Your task to perform on an android device: Open Youtube and go to "Your channel" Image 0: 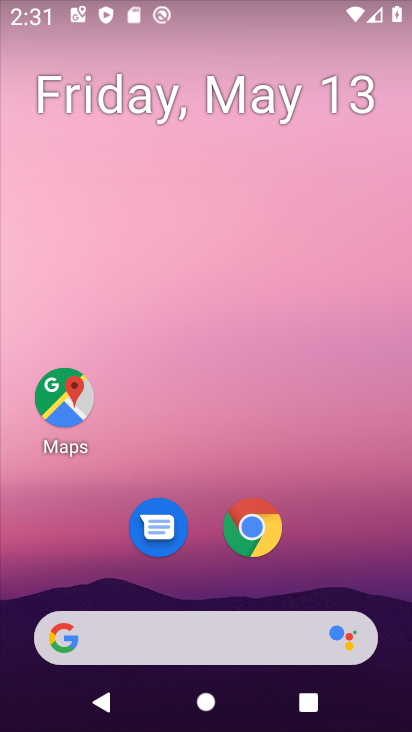
Step 0: drag from (213, 565) to (407, 217)
Your task to perform on an android device: Open Youtube and go to "Your channel" Image 1: 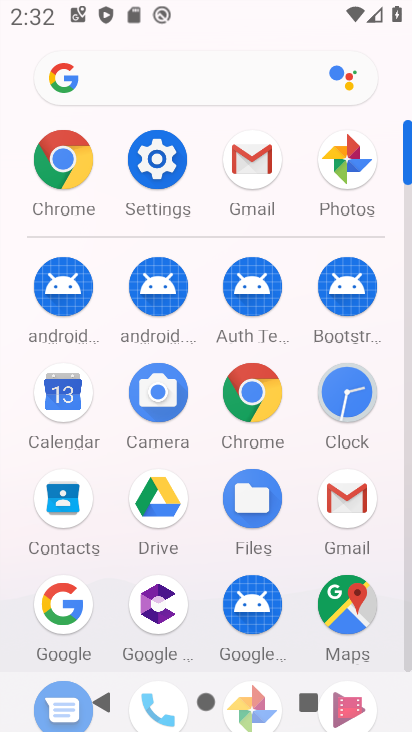
Step 1: drag from (200, 579) to (285, 159)
Your task to perform on an android device: Open Youtube and go to "Your channel" Image 2: 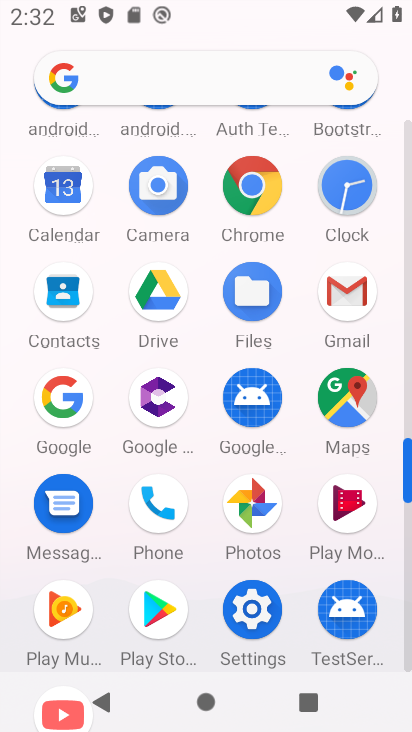
Step 2: drag from (101, 647) to (130, 254)
Your task to perform on an android device: Open Youtube and go to "Your channel" Image 3: 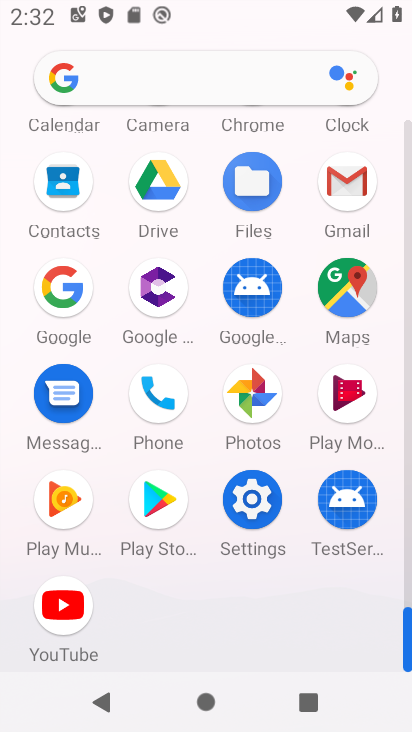
Step 3: click (57, 619)
Your task to perform on an android device: Open Youtube and go to "Your channel" Image 4: 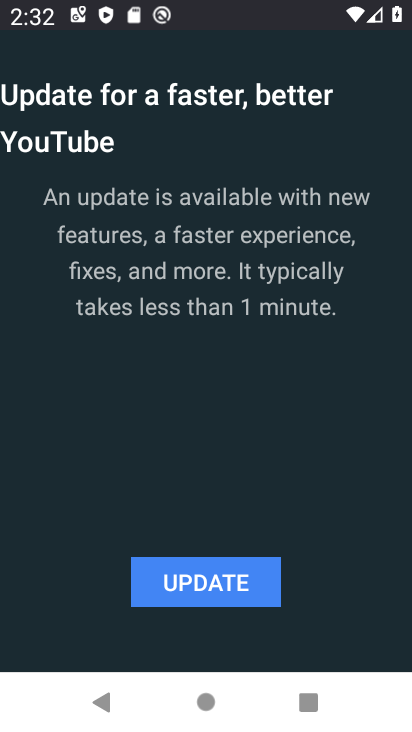
Step 4: click (240, 601)
Your task to perform on an android device: Open Youtube and go to "Your channel" Image 5: 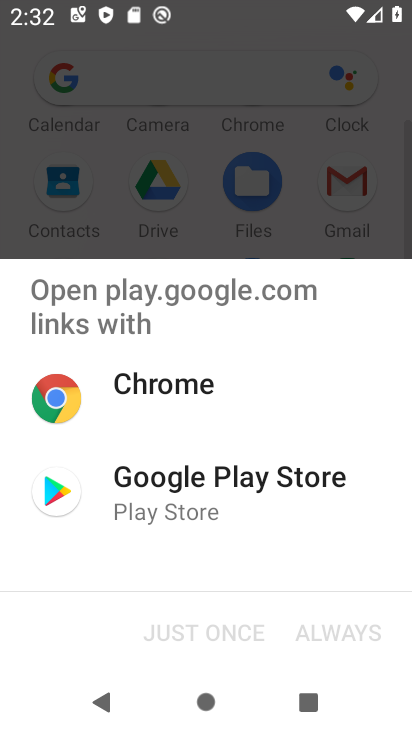
Step 5: click (168, 535)
Your task to perform on an android device: Open Youtube and go to "Your channel" Image 6: 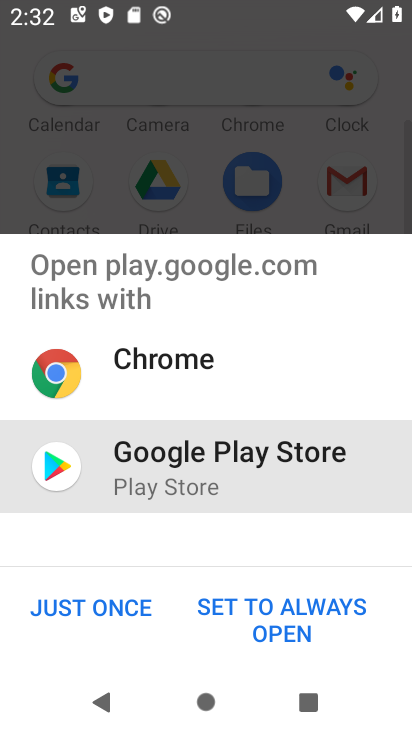
Step 6: click (84, 608)
Your task to perform on an android device: Open Youtube and go to "Your channel" Image 7: 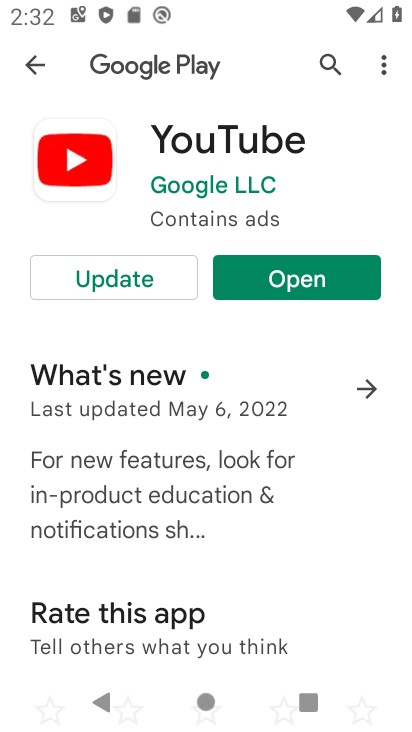
Step 7: click (149, 284)
Your task to perform on an android device: Open Youtube and go to "Your channel" Image 8: 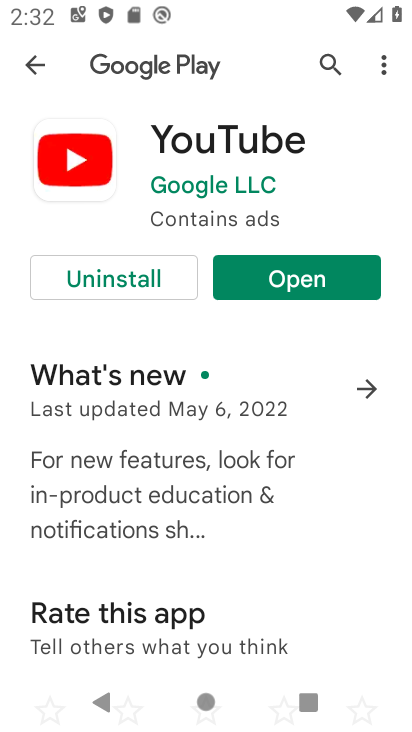
Step 8: click (263, 269)
Your task to perform on an android device: Open Youtube and go to "Your channel" Image 9: 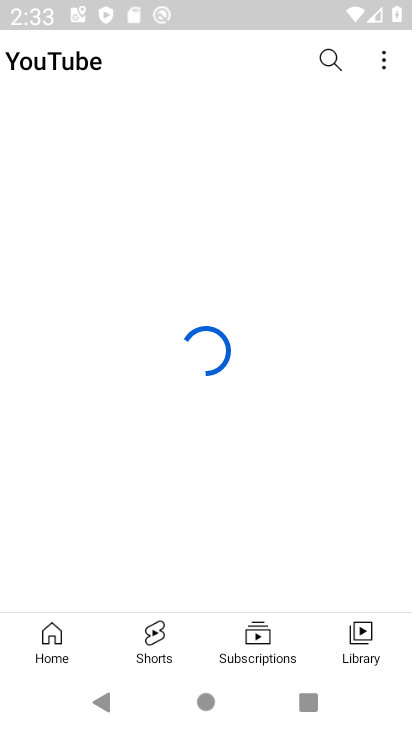
Step 9: click (330, 70)
Your task to perform on an android device: Open Youtube and go to "Your channel" Image 10: 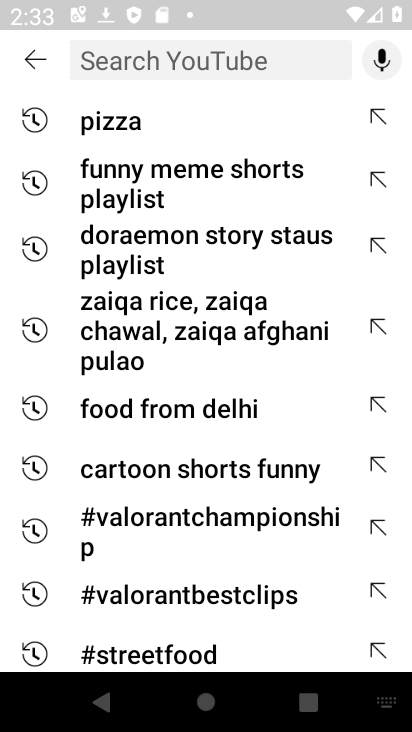
Step 10: type "your channek"
Your task to perform on an android device: Open Youtube and go to "Your channel" Image 11: 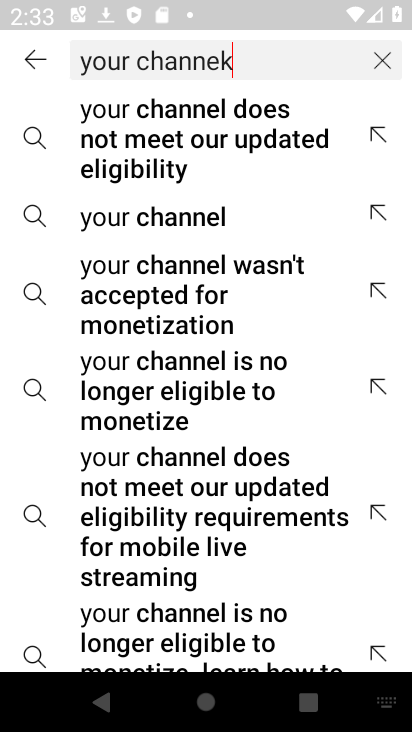
Step 11: click (142, 223)
Your task to perform on an android device: Open Youtube and go to "Your channel" Image 12: 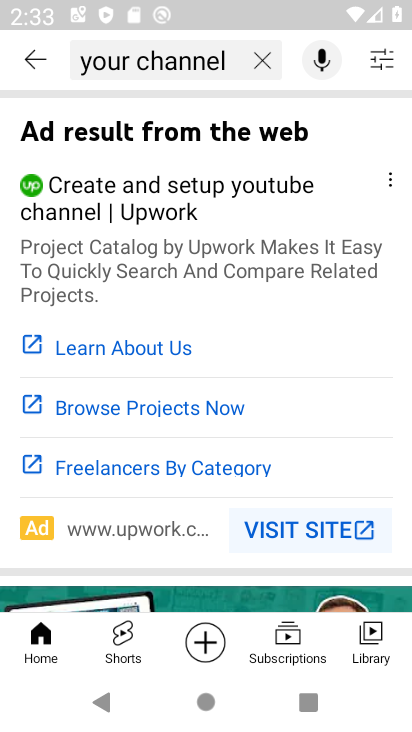
Step 12: task complete